Your task to perform on an android device: Open Chrome and go to the settings page Image 0: 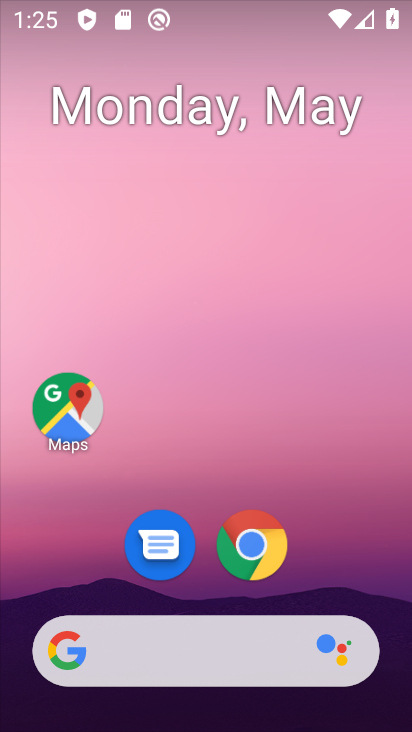
Step 0: click (254, 559)
Your task to perform on an android device: Open Chrome and go to the settings page Image 1: 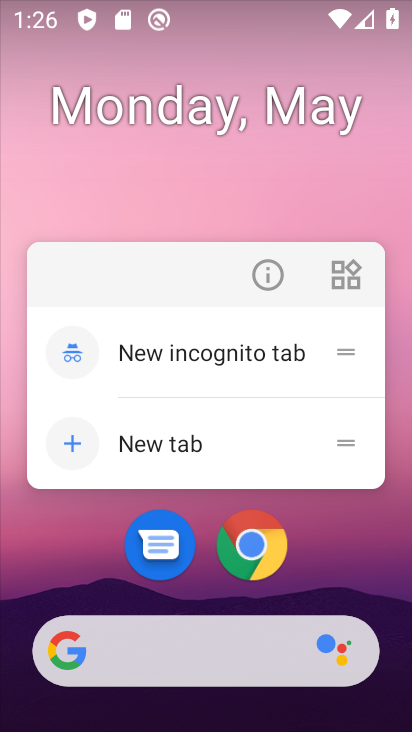
Step 1: click (260, 541)
Your task to perform on an android device: Open Chrome and go to the settings page Image 2: 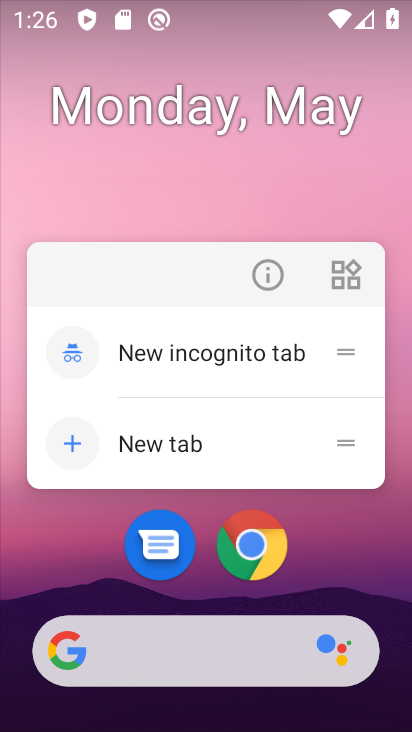
Step 2: click (260, 541)
Your task to perform on an android device: Open Chrome and go to the settings page Image 3: 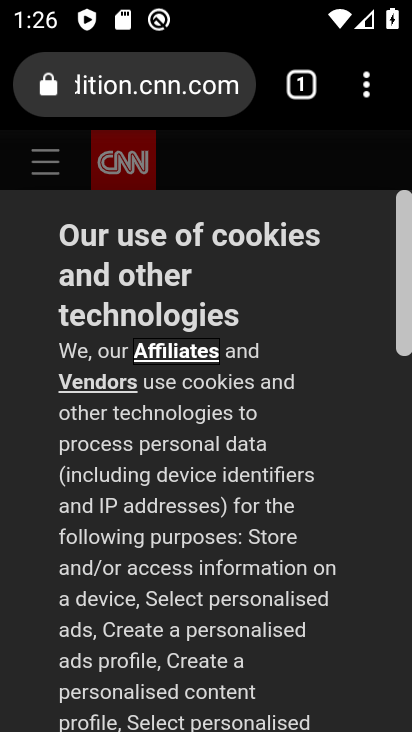
Step 3: click (368, 87)
Your task to perform on an android device: Open Chrome and go to the settings page Image 4: 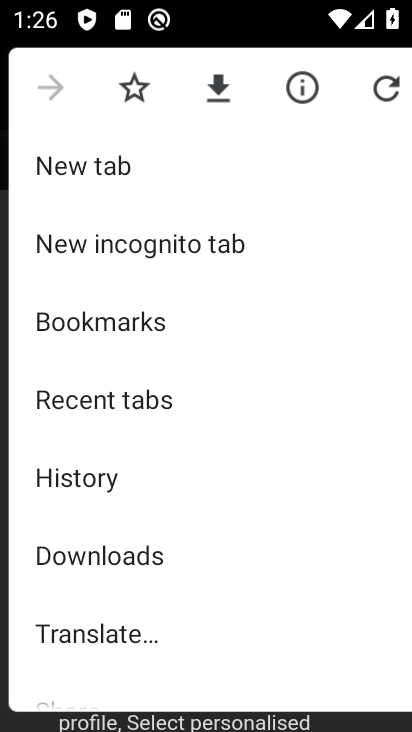
Step 4: drag from (220, 630) to (278, 97)
Your task to perform on an android device: Open Chrome and go to the settings page Image 5: 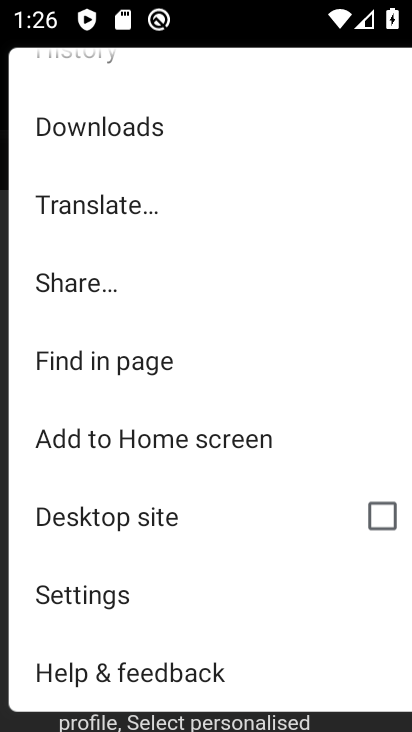
Step 5: click (144, 595)
Your task to perform on an android device: Open Chrome and go to the settings page Image 6: 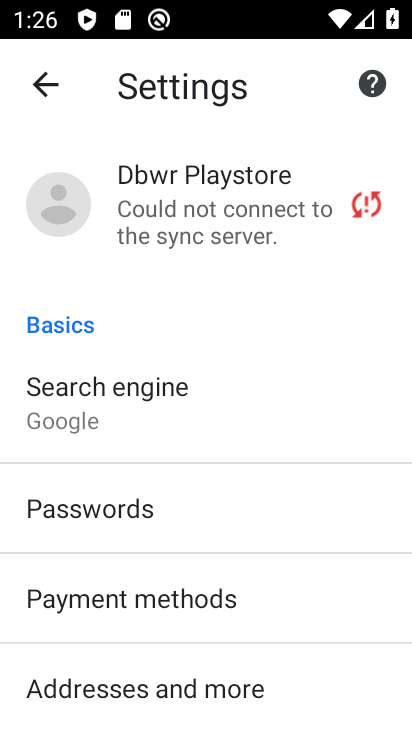
Step 6: task complete